Your task to perform on an android device: star an email in the gmail app Image 0: 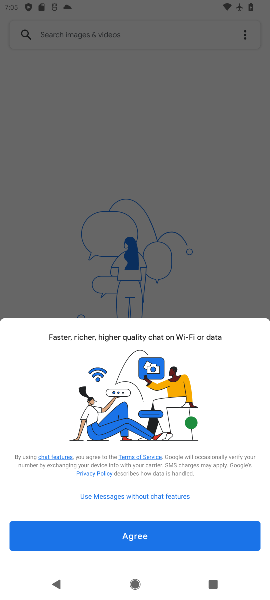
Step 0: press home button
Your task to perform on an android device: star an email in the gmail app Image 1: 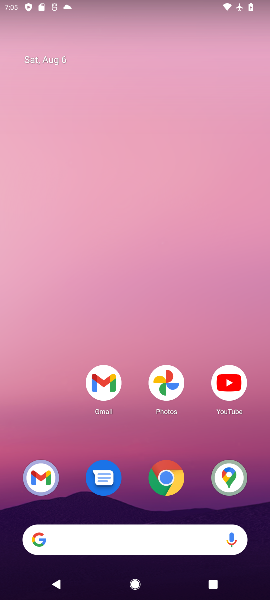
Step 1: click (44, 473)
Your task to perform on an android device: star an email in the gmail app Image 2: 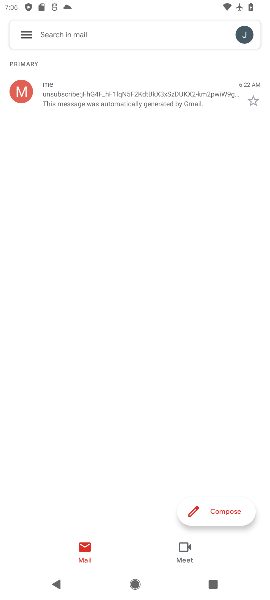
Step 2: click (257, 100)
Your task to perform on an android device: star an email in the gmail app Image 3: 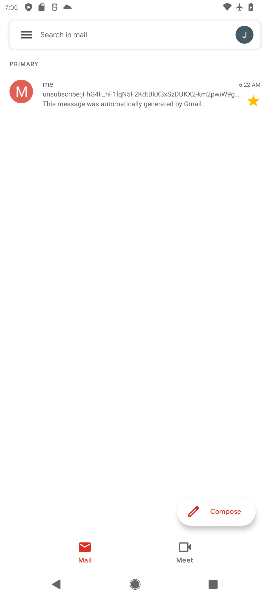
Step 3: task complete